Your task to perform on an android device: Go to calendar. Show me events next week Image 0: 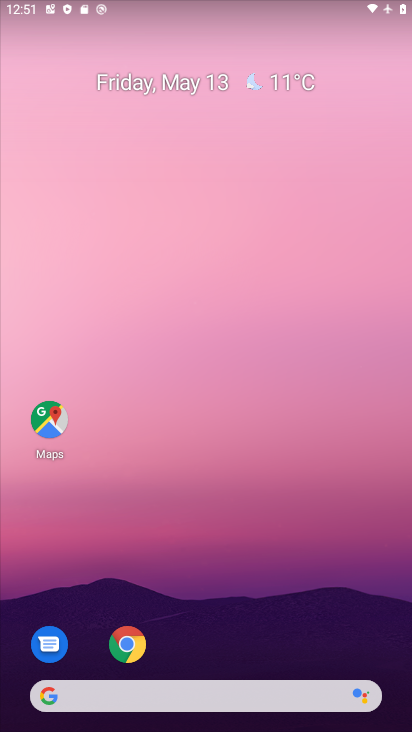
Step 0: drag from (179, 725) to (171, 95)
Your task to perform on an android device: Go to calendar. Show me events next week Image 1: 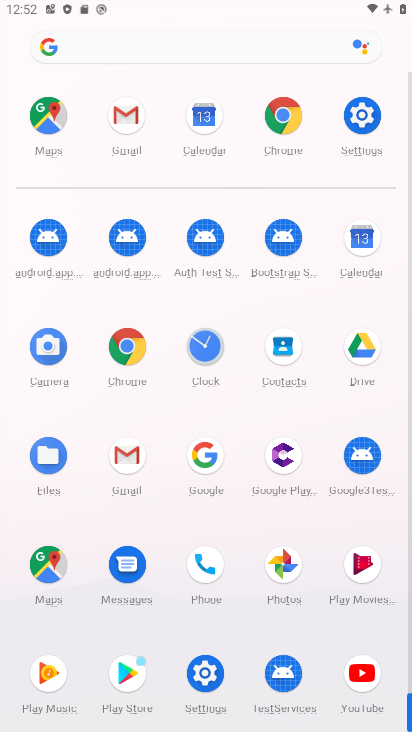
Step 1: click (365, 236)
Your task to perform on an android device: Go to calendar. Show me events next week Image 2: 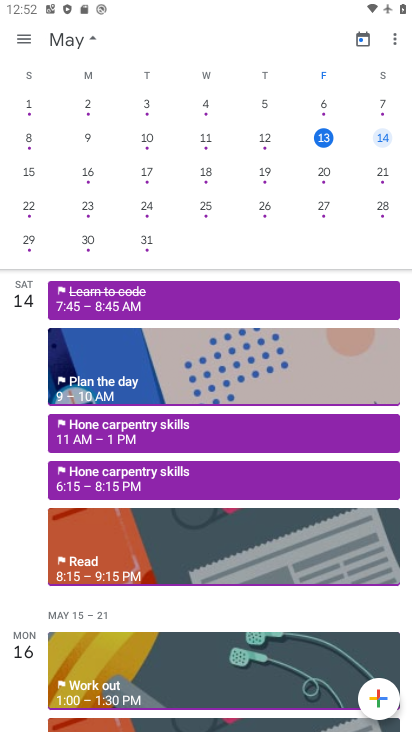
Step 2: drag from (335, 167) to (216, 160)
Your task to perform on an android device: Go to calendar. Show me events next week Image 3: 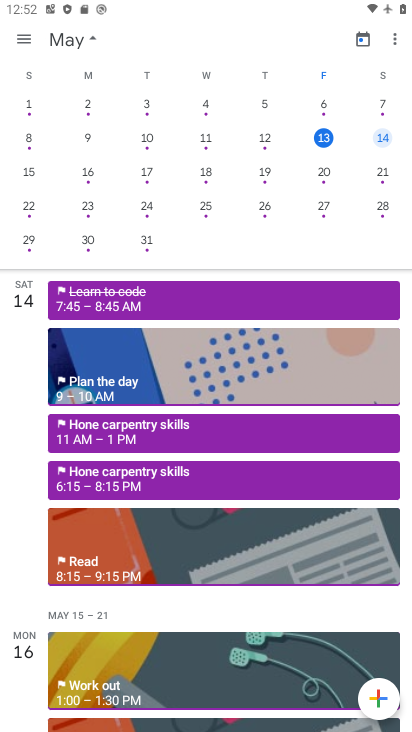
Step 3: click (89, 171)
Your task to perform on an android device: Go to calendar. Show me events next week Image 4: 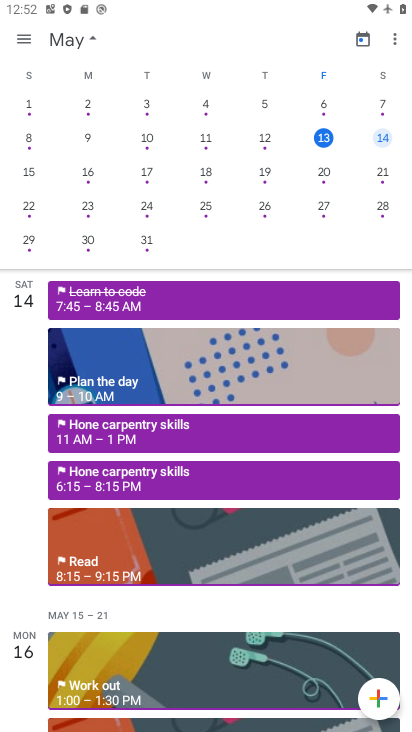
Step 4: click (85, 171)
Your task to perform on an android device: Go to calendar. Show me events next week Image 5: 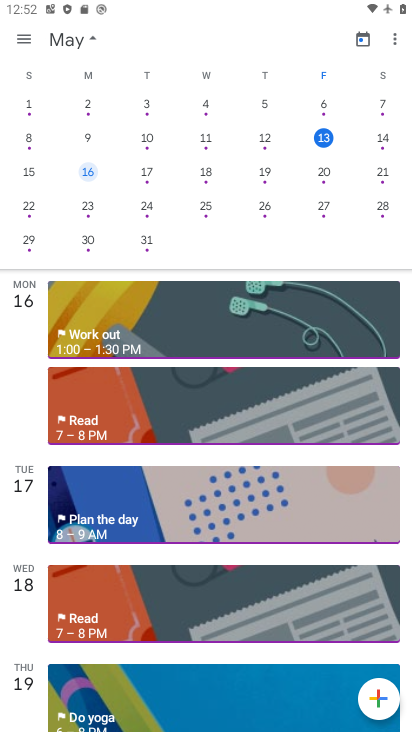
Step 5: click (25, 36)
Your task to perform on an android device: Go to calendar. Show me events next week Image 6: 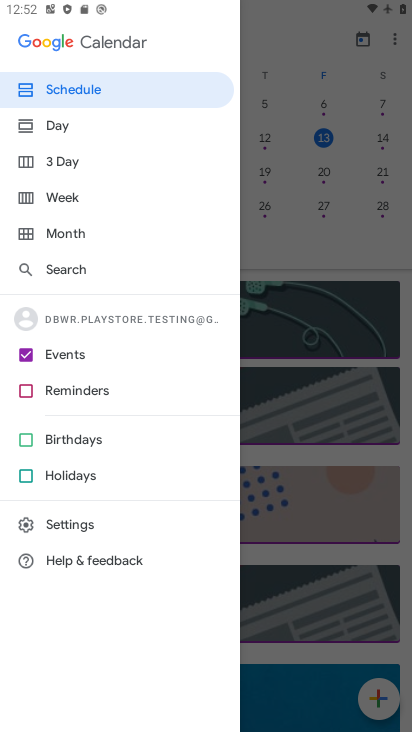
Step 6: click (67, 194)
Your task to perform on an android device: Go to calendar. Show me events next week Image 7: 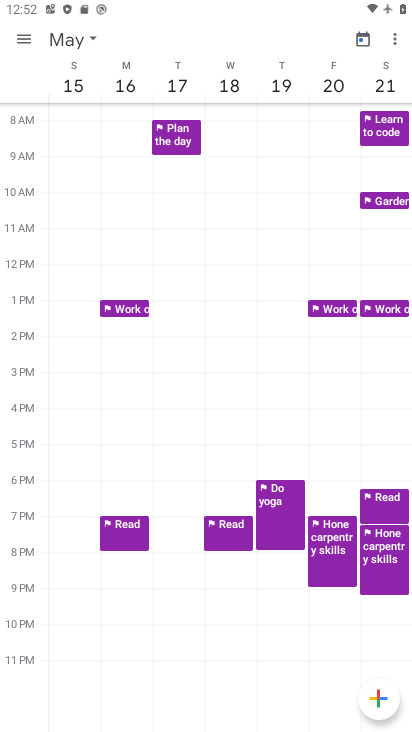
Step 7: task complete